Your task to perform on an android device: Check the news Image 0: 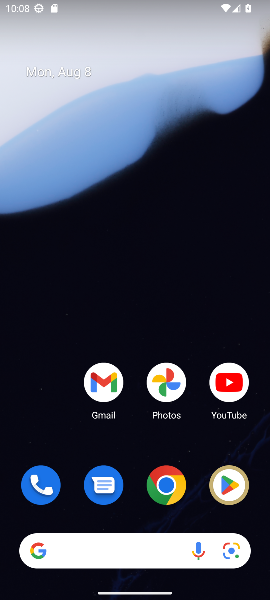
Step 0: click (173, 484)
Your task to perform on an android device: Check the news Image 1: 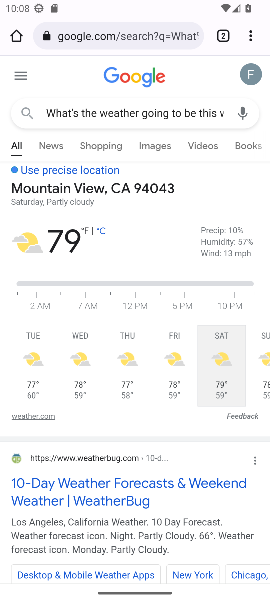
Step 1: click (109, 28)
Your task to perform on an android device: Check the news Image 2: 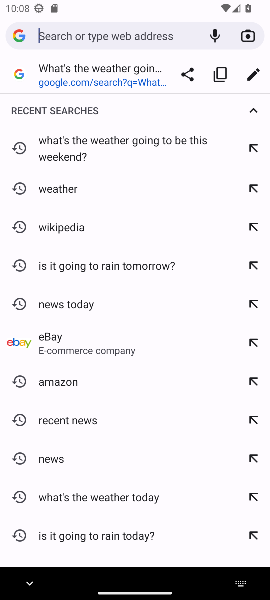
Step 2: type "Check the news"
Your task to perform on an android device: Check the news Image 3: 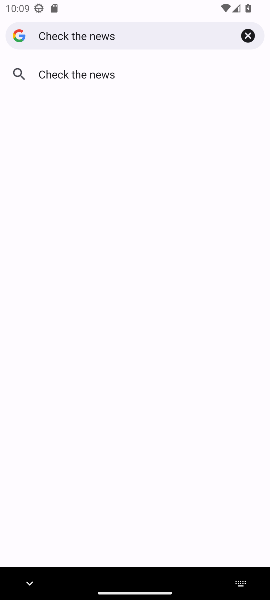
Step 3: click (96, 75)
Your task to perform on an android device: Check the news Image 4: 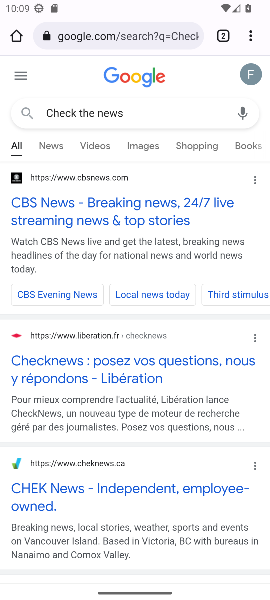
Step 4: click (53, 139)
Your task to perform on an android device: Check the news Image 5: 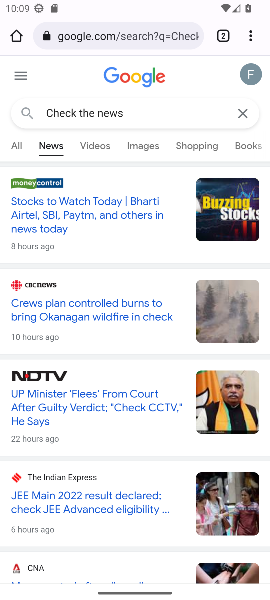
Step 5: task complete